Your task to perform on an android device: turn off sleep mode Image 0: 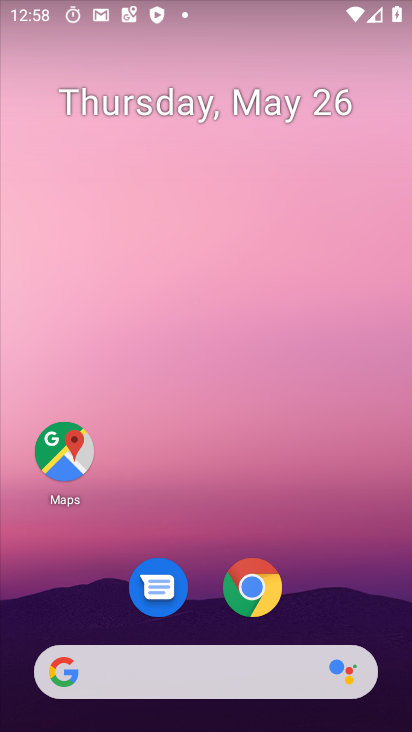
Step 0: drag from (343, 687) to (220, 24)
Your task to perform on an android device: turn off sleep mode Image 1: 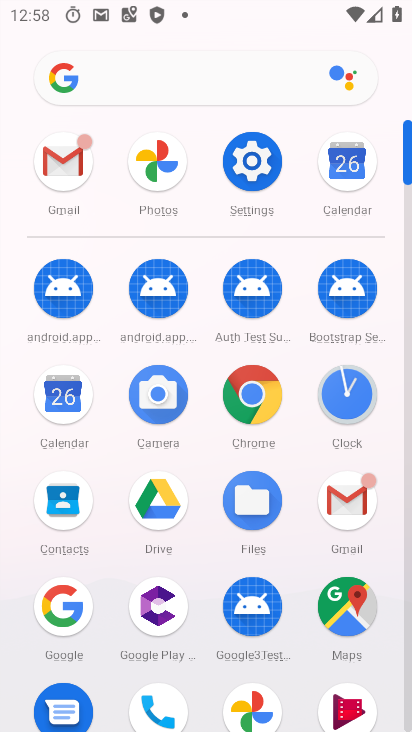
Step 1: click (249, 178)
Your task to perform on an android device: turn off sleep mode Image 2: 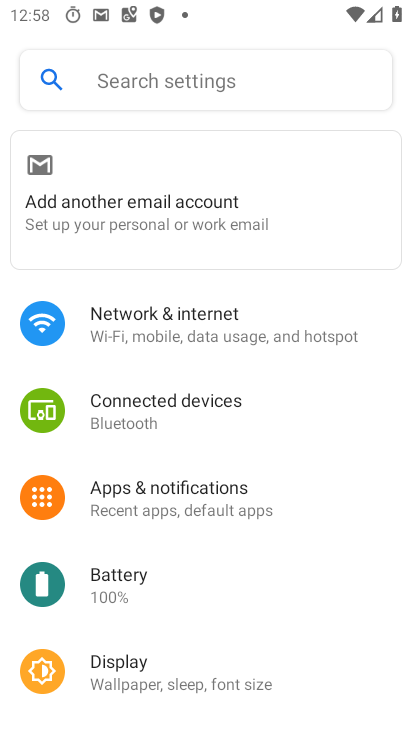
Step 2: click (152, 81)
Your task to perform on an android device: turn off sleep mode Image 3: 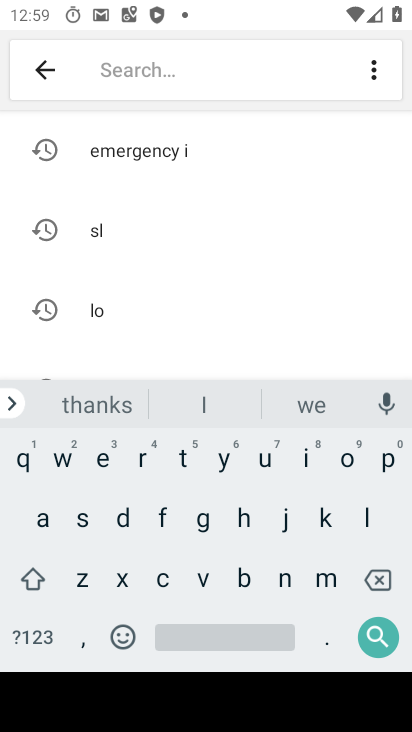
Step 3: click (85, 514)
Your task to perform on an android device: turn off sleep mode Image 4: 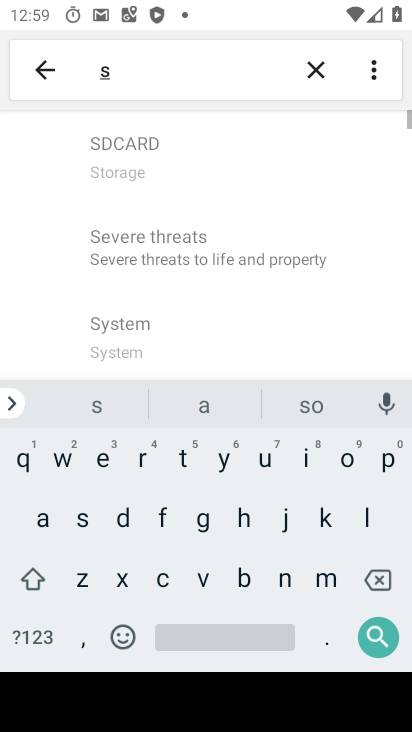
Step 4: click (363, 509)
Your task to perform on an android device: turn off sleep mode Image 5: 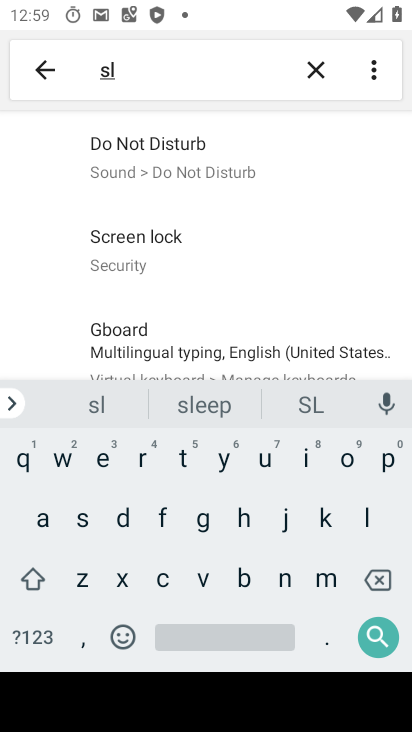
Step 5: click (175, 164)
Your task to perform on an android device: turn off sleep mode Image 6: 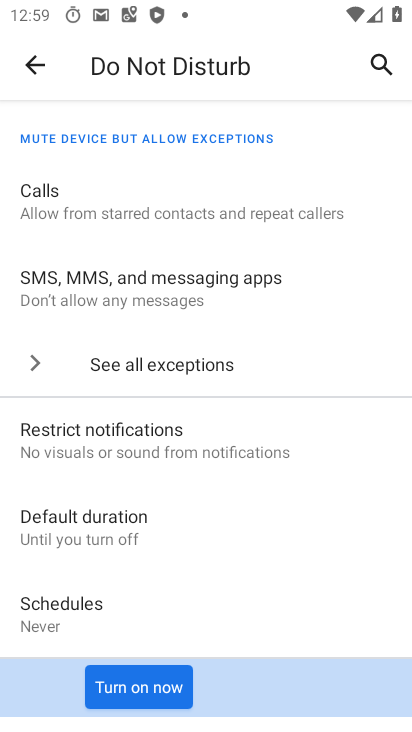
Step 6: click (151, 688)
Your task to perform on an android device: turn off sleep mode Image 7: 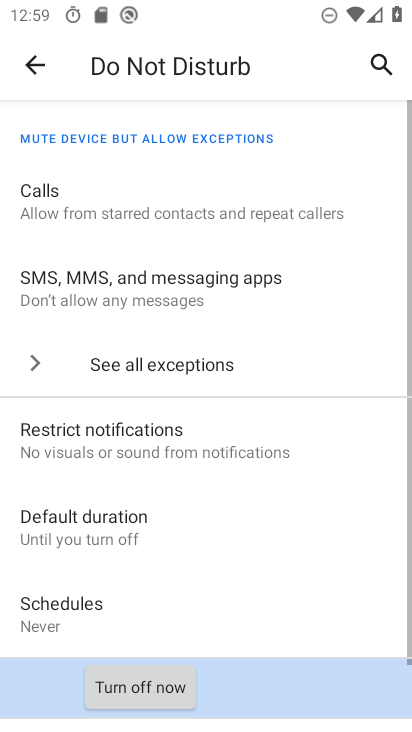
Step 7: click (151, 688)
Your task to perform on an android device: turn off sleep mode Image 8: 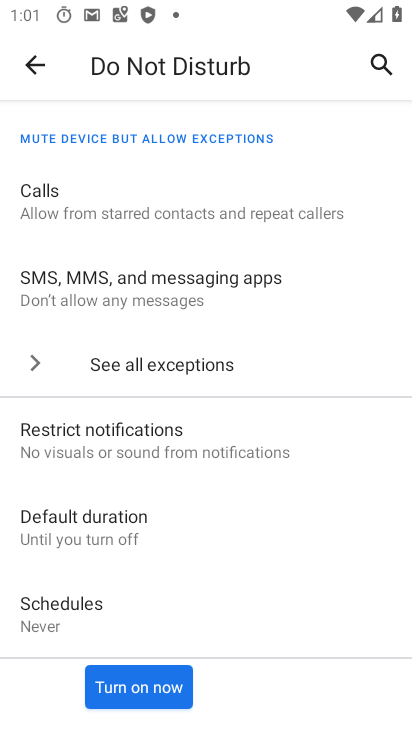
Step 8: task complete